Your task to perform on an android device: Is it going to rain this weekend? Image 0: 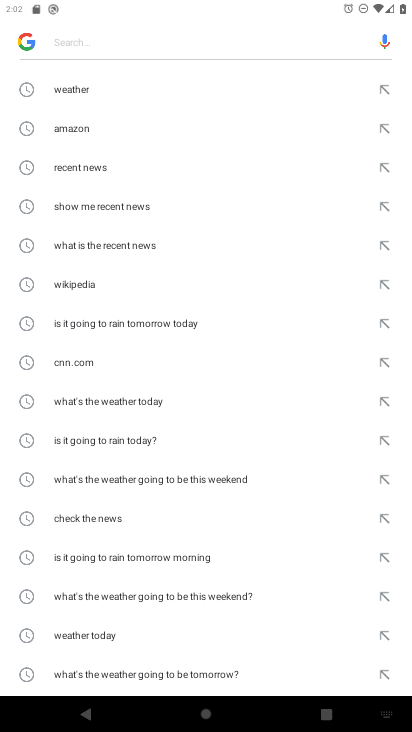
Step 0: press home button
Your task to perform on an android device: Is it going to rain this weekend? Image 1: 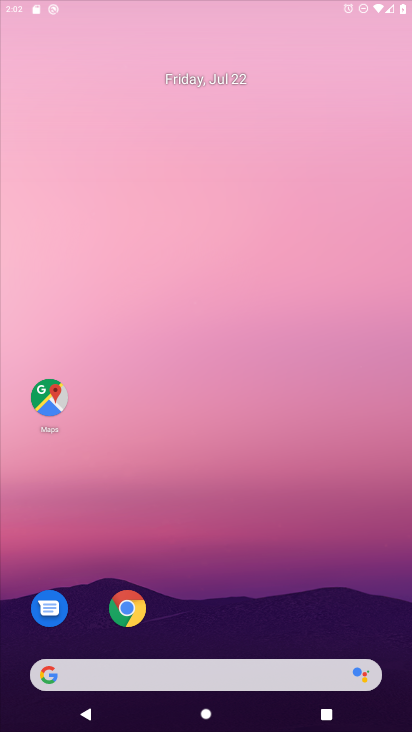
Step 1: drag from (362, 619) to (164, 41)
Your task to perform on an android device: Is it going to rain this weekend? Image 2: 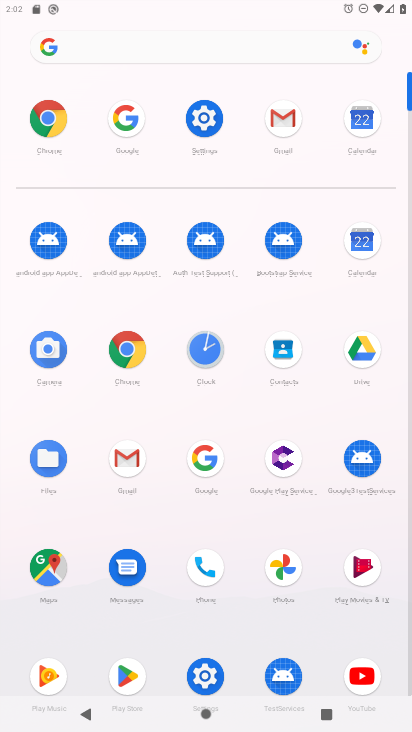
Step 2: click (210, 457)
Your task to perform on an android device: Is it going to rain this weekend? Image 3: 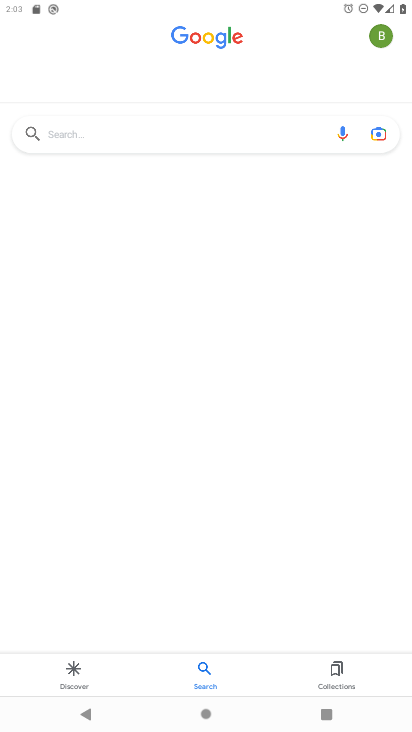
Step 3: press home button
Your task to perform on an android device: Is it going to rain this weekend? Image 4: 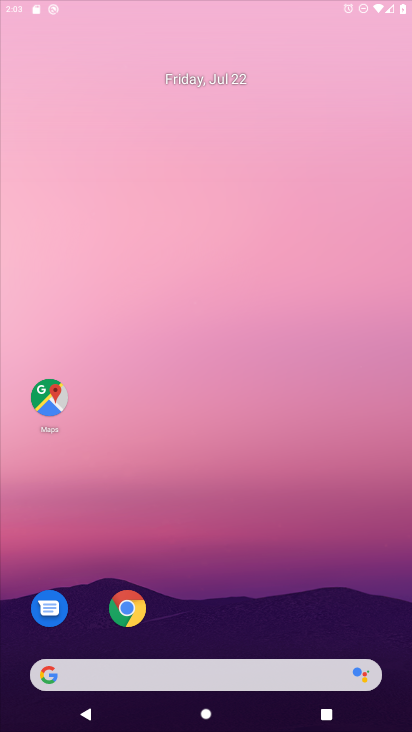
Step 4: drag from (384, 640) to (109, 10)
Your task to perform on an android device: Is it going to rain this weekend? Image 5: 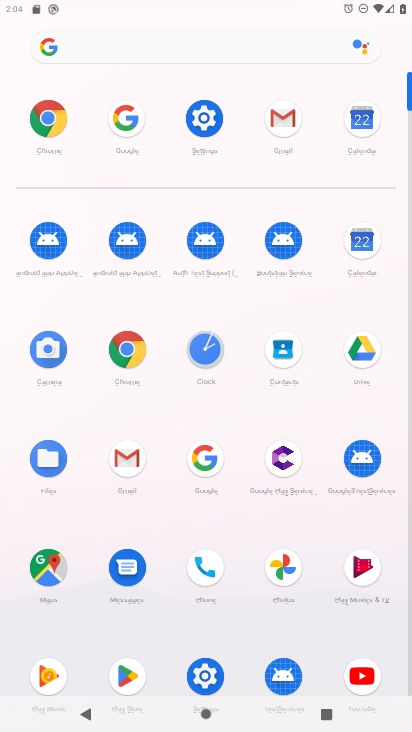
Step 5: click (212, 469)
Your task to perform on an android device: Is it going to rain this weekend? Image 6: 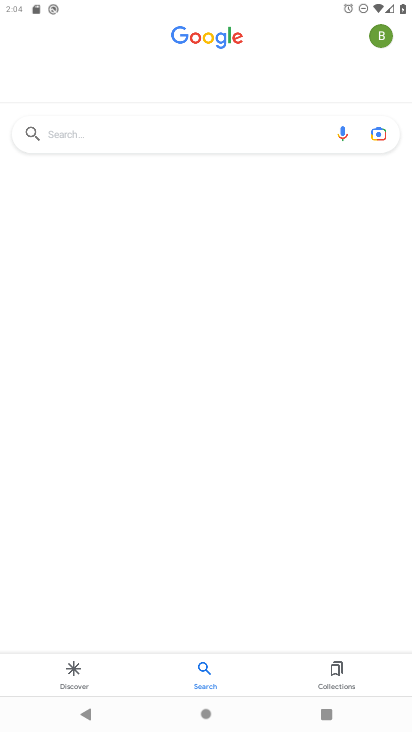
Step 6: click (72, 135)
Your task to perform on an android device: Is it going to rain this weekend? Image 7: 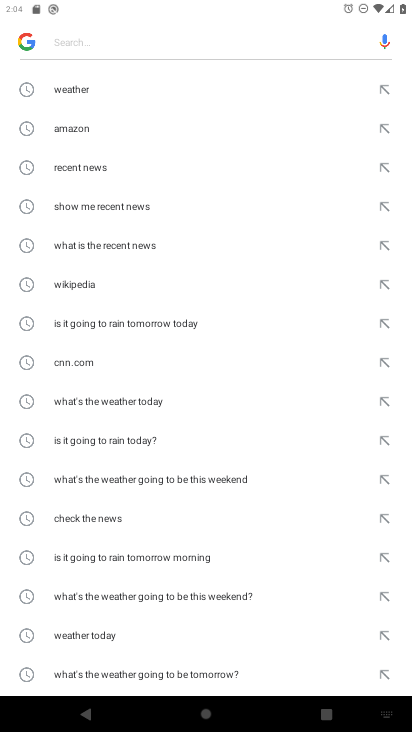
Step 7: type "Is it going to rain this weekend?"
Your task to perform on an android device: Is it going to rain this weekend? Image 8: 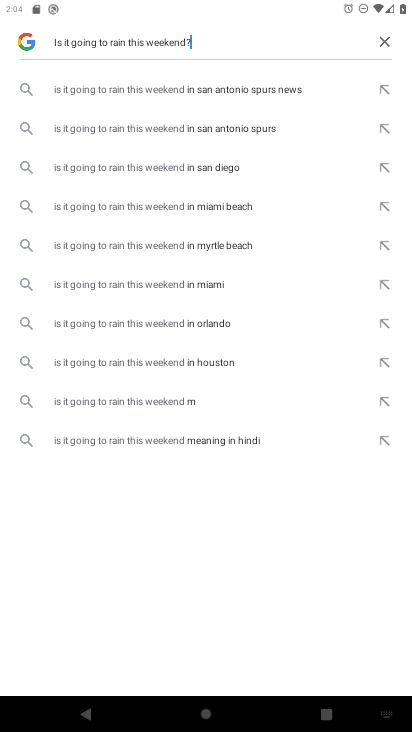
Step 8: task complete